Your task to perform on an android device: turn pop-ups on in chrome Image 0: 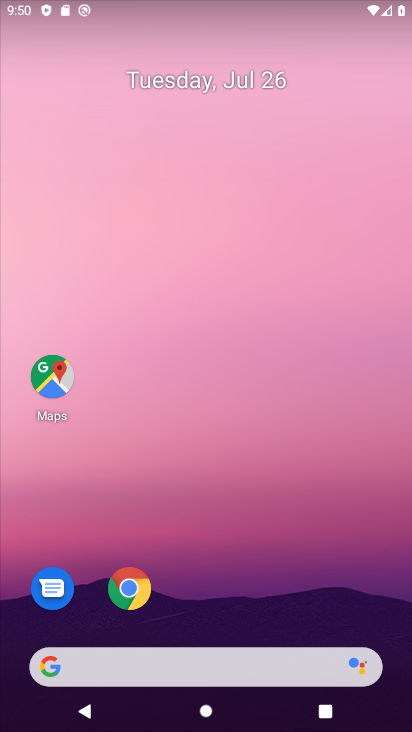
Step 0: drag from (270, 603) to (255, 160)
Your task to perform on an android device: turn pop-ups on in chrome Image 1: 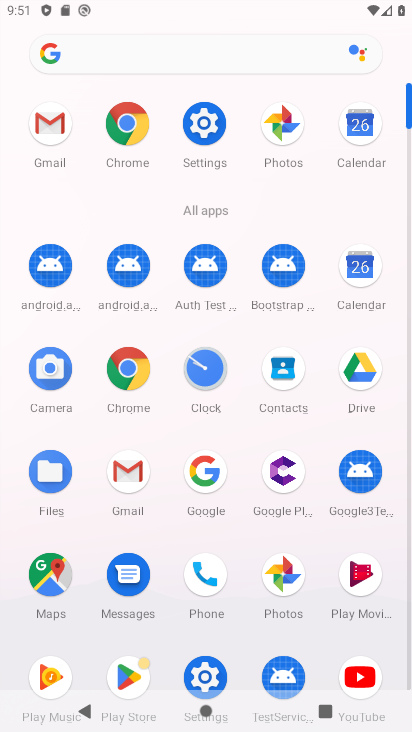
Step 1: click (109, 126)
Your task to perform on an android device: turn pop-ups on in chrome Image 2: 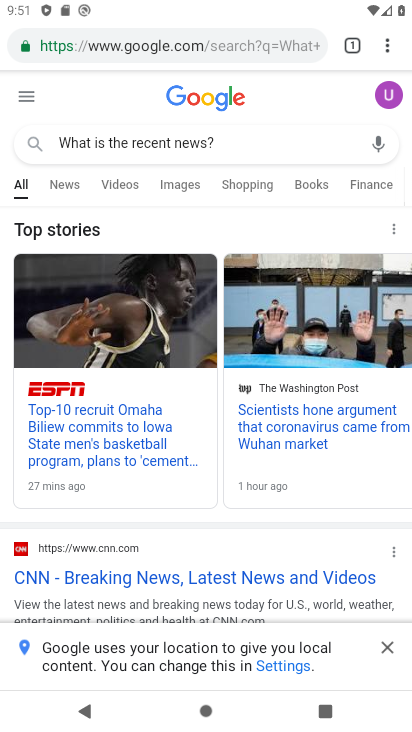
Step 2: click (393, 45)
Your task to perform on an android device: turn pop-ups on in chrome Image 3: 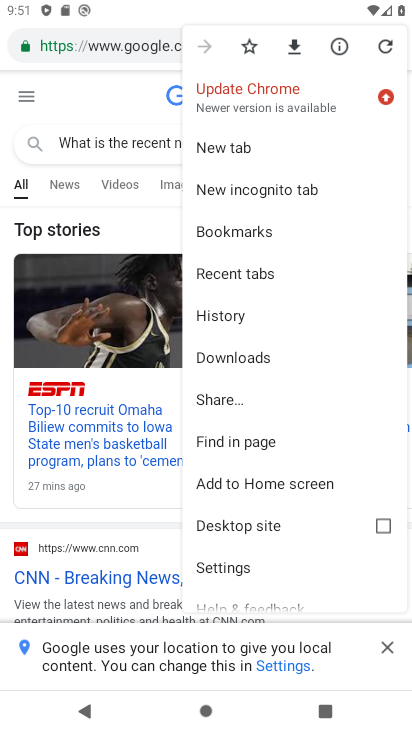
Step 3: click (231, 572)
Your task to perform on an android device: turn pop-ups on in chrome Image 4: 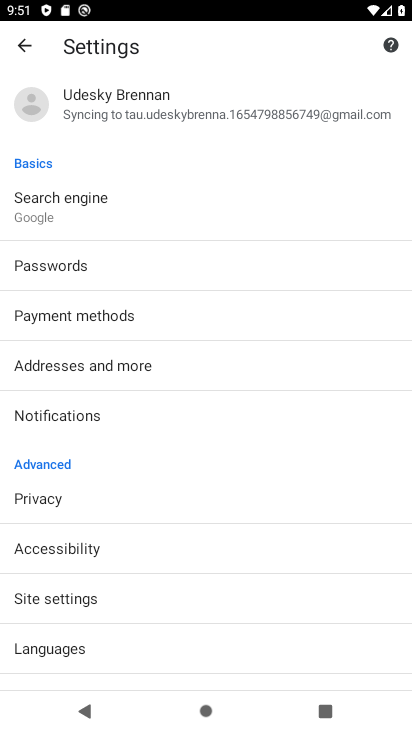
Step 4: click (141, 600)
Your task to perform on an android device: turn pop-ups on in chrome Image 5: 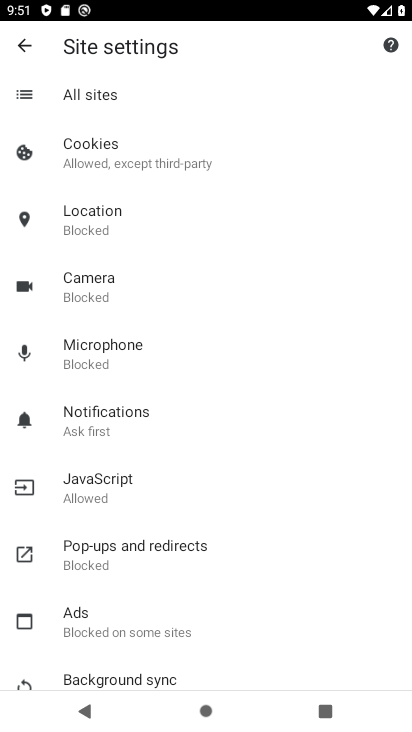
Step 5: click (143, 568)
Your task to perform on an android device: turn pop-ups on in chrome Image 6: 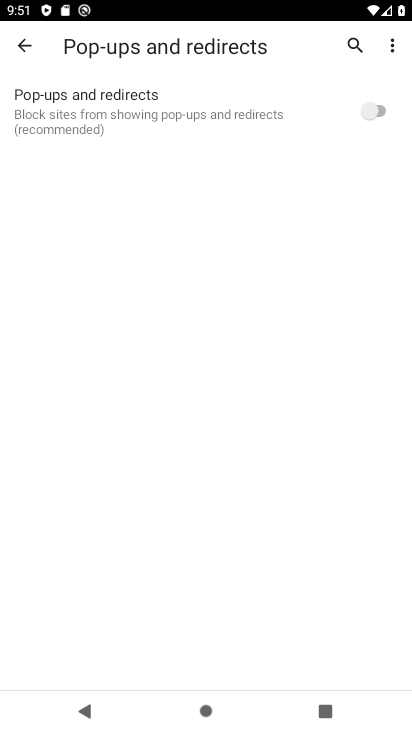
Step 6: click (367, 97)
Your task to perform on an android device: turn pop-ups on in chrome Image 7: 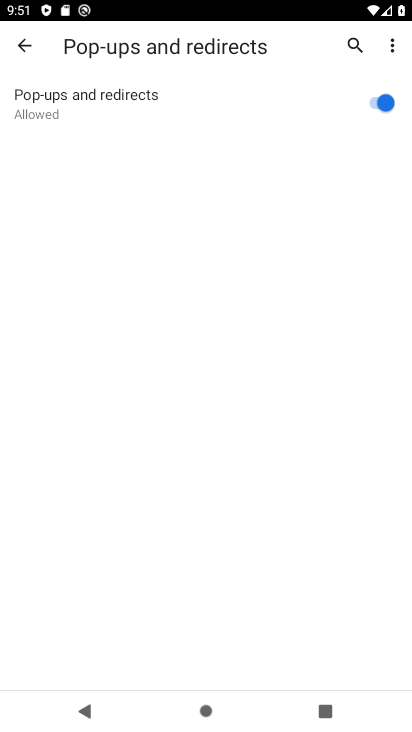
Step 7: task complete